Your task to perform on an android device: turn off priority inbox in the gmail app Image 0: 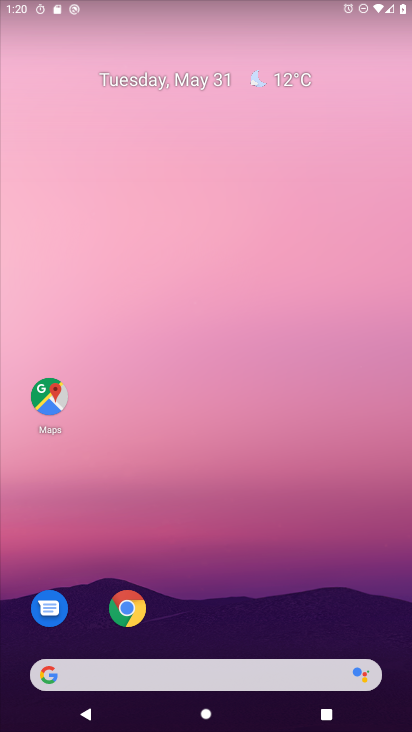
Step 0: drag from (325, 579) to (375, 7)
Your task to perform on an android device: turn off priority inbox in the gmail app Image 1: 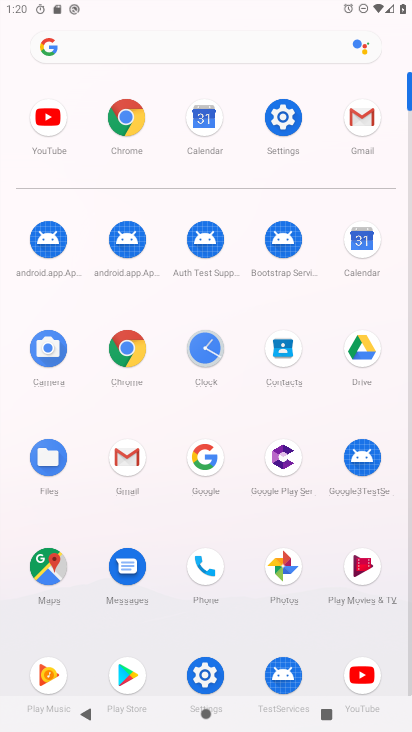
Step 1: click (358, 122)
Your task to perform on an android device: turn off priority inbox in the gmail app Image 2: 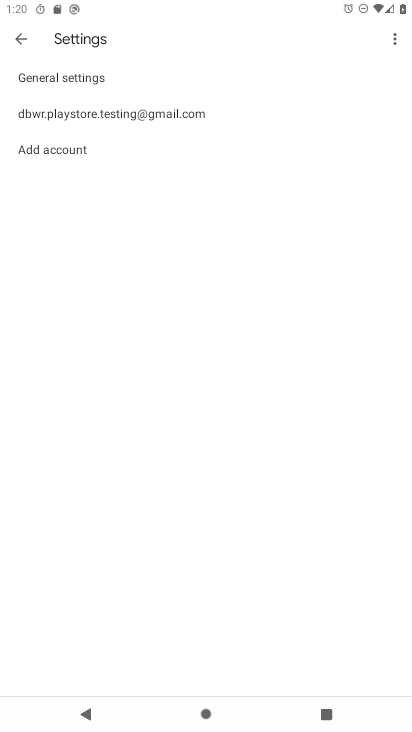
Step 2: click (105, 116)
Your task to perform on an android device: turn off priority inbox in the gmail app Image 3: 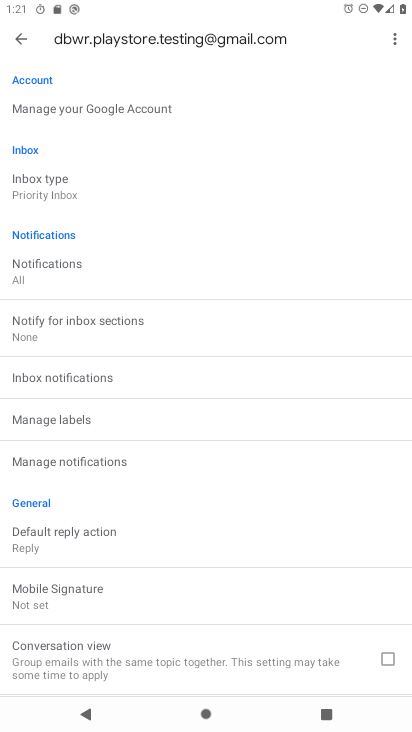
Step 3: click (34, 193)
Your task to perform on an android device: turn off priority inbox in the gmail app Image 4: 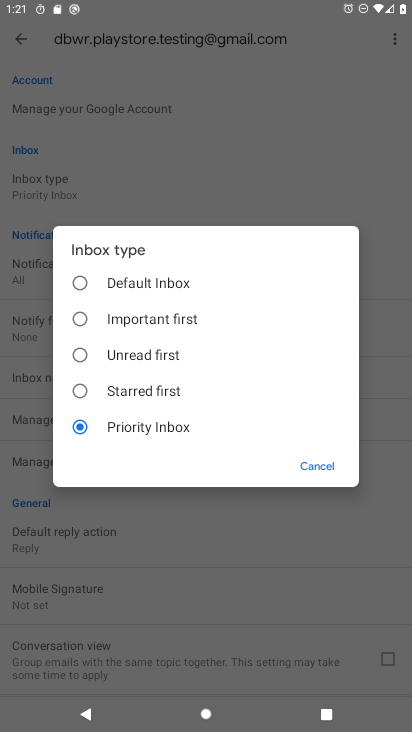
Step 4: click (78, 290)
Your task to perform on an android device: turn off priority inbox in the gmail app Image 5: 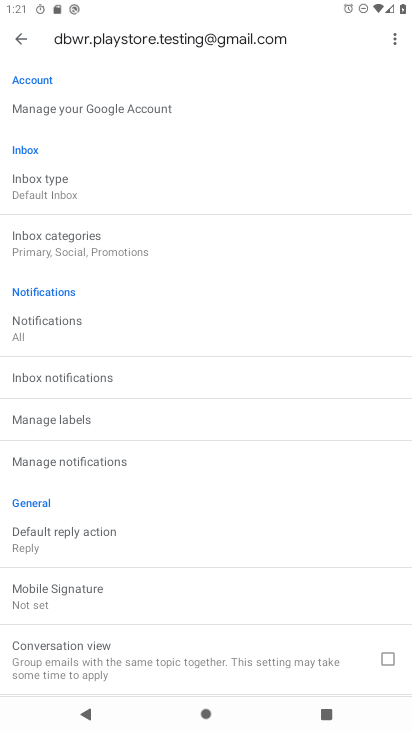
Step 5: task complete